Your task to perform on an android device: Go to eBay Image 0: 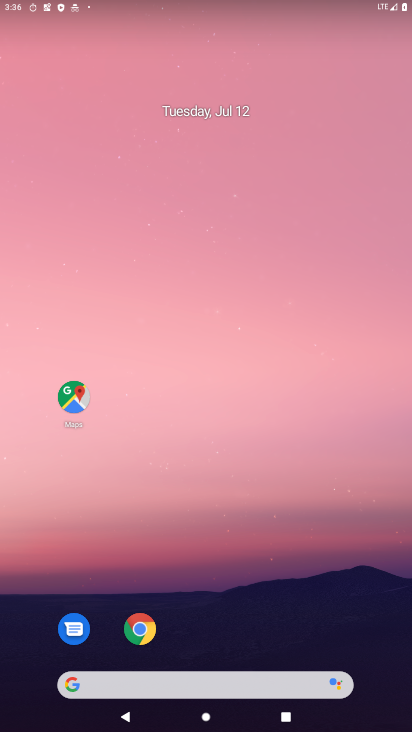
Step 0: drag from (243, 593) to (314, 0)
Your task to perform on an android device: Go to eBay Image 1: 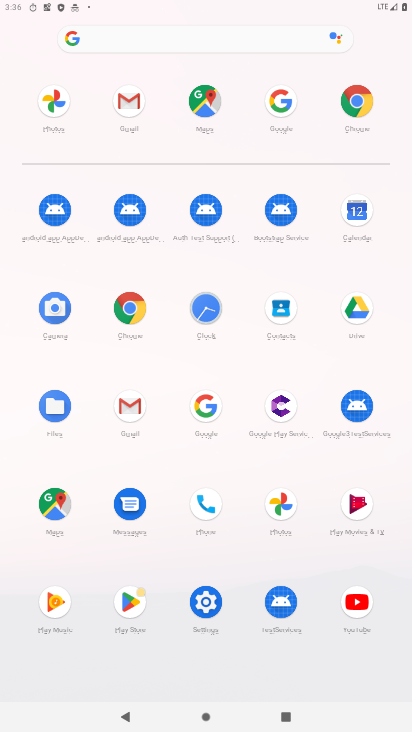
Step 1: click (128, 310)
Your task to perform on an android device: Go to eBay Image 2: 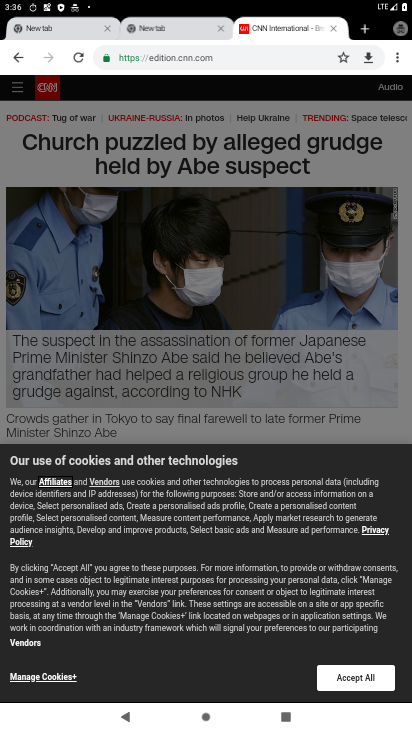
Step 2: click (265, 59)
Your task to perform on an android device: Go to eBay Image 3: 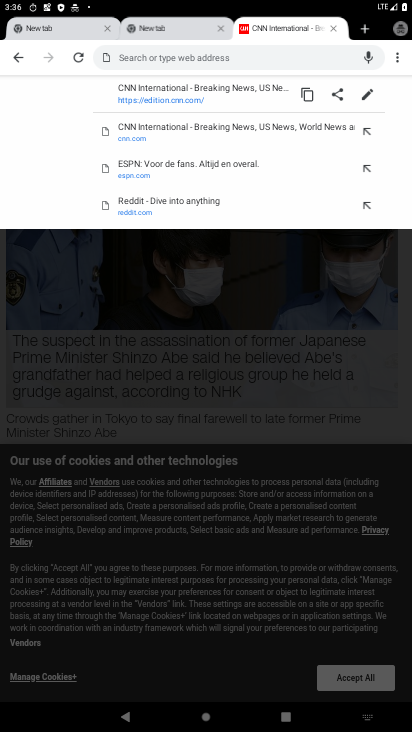
Step 3: type "Go to eBay"
Your task to perform on an android device: Go to eBay Image 4: 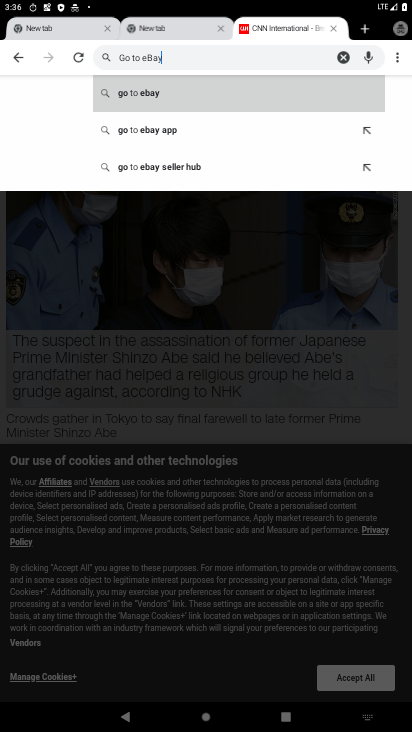
Step 4: click (144, 95)
Your task to perform on an android device: Go to eBay Image 5: 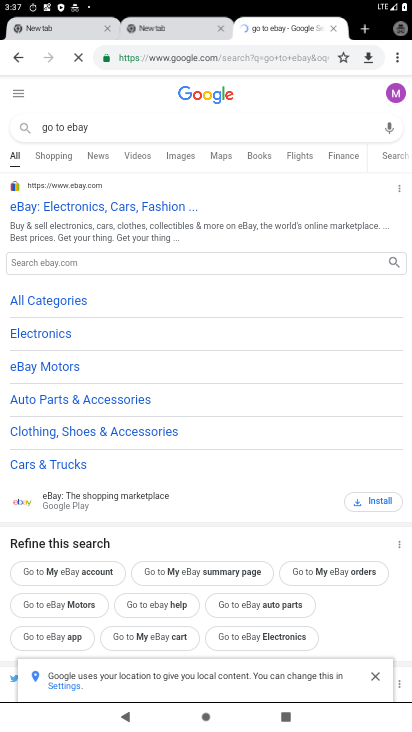
Step 5: task complete